Your task to perform on an android device: change the clock style Image 0: 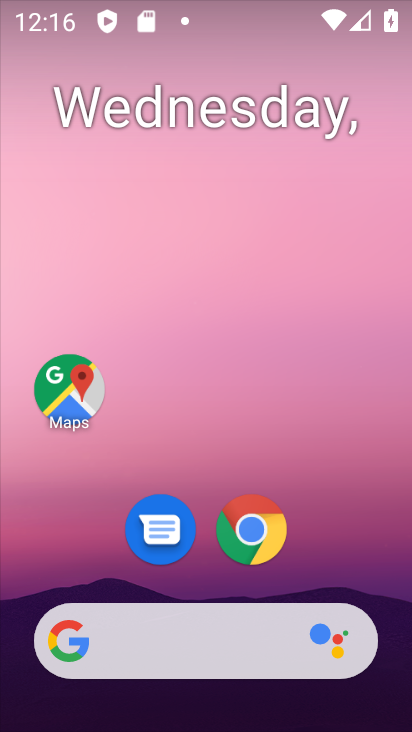
Step 0: drag from (349, 561) to (320, 189)
Your task to perform on an android device: change the clock style Image 1: 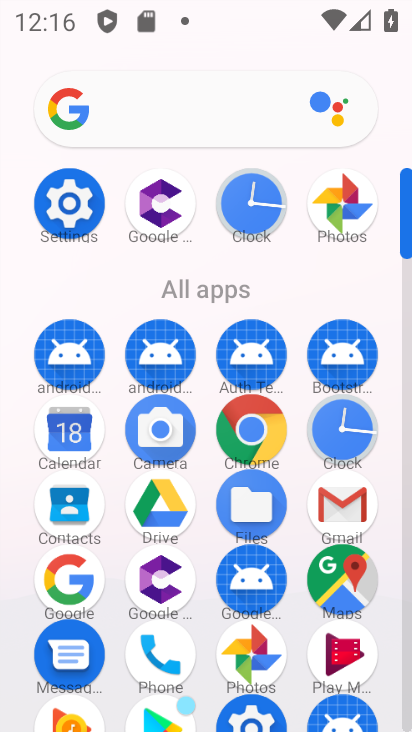
Step 1: click (330, 441)
Your task to perform on an android device: change the clock style Image 2: 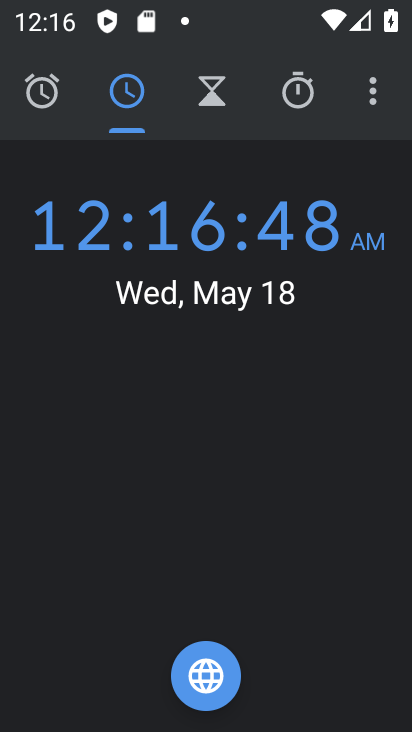
Step 2: click (370, 91)
Your task to perform on an android device: change the clock style Image 3: 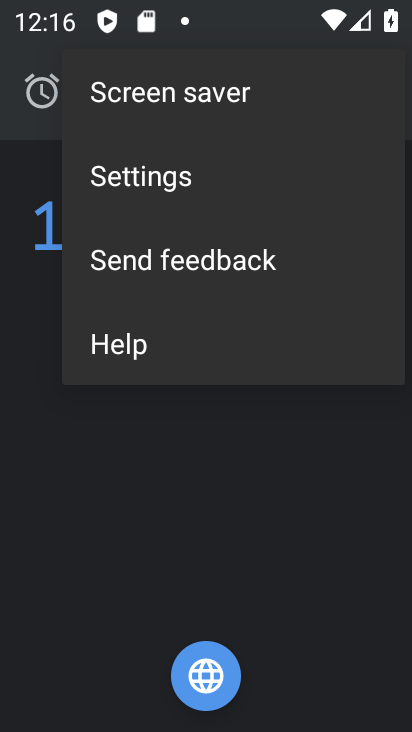
Step 3: click (231, 193)
Your task to perform on an android device: change the clock style Image 4: 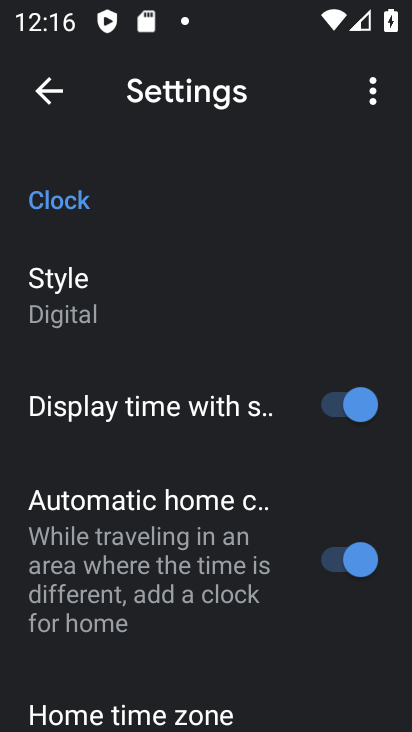
Step 4: click (117, 315)
Your task to perform on an android device: change the clock style Image 5: 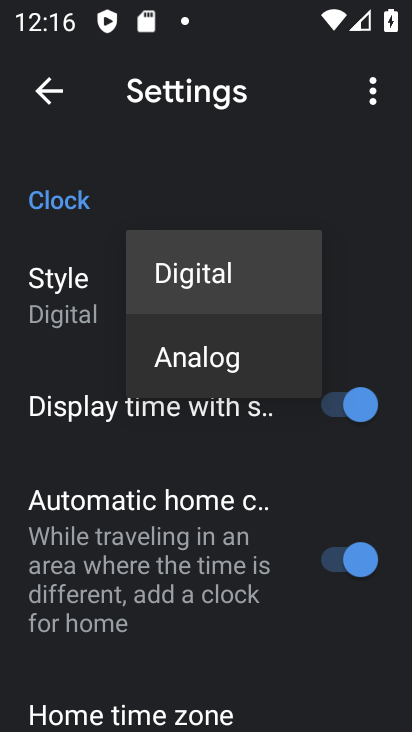
Step 5: click (205, 364)
Your task to perform on an android device: change the clock style Image 6: 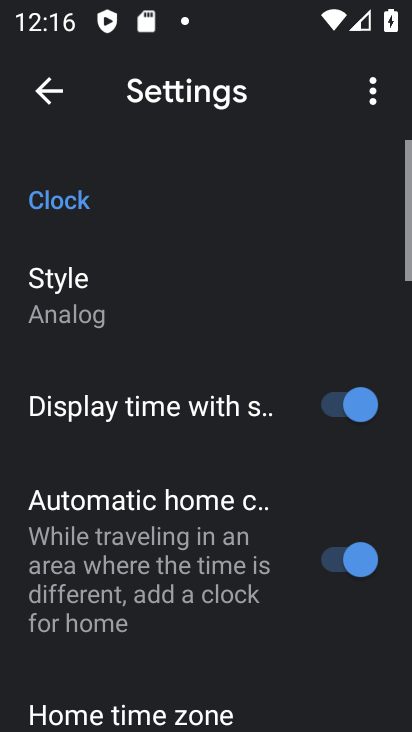
Step 6: task complete